Your task to perform on an android device: open app "Spotify: Music and Podcasts" Image 0: 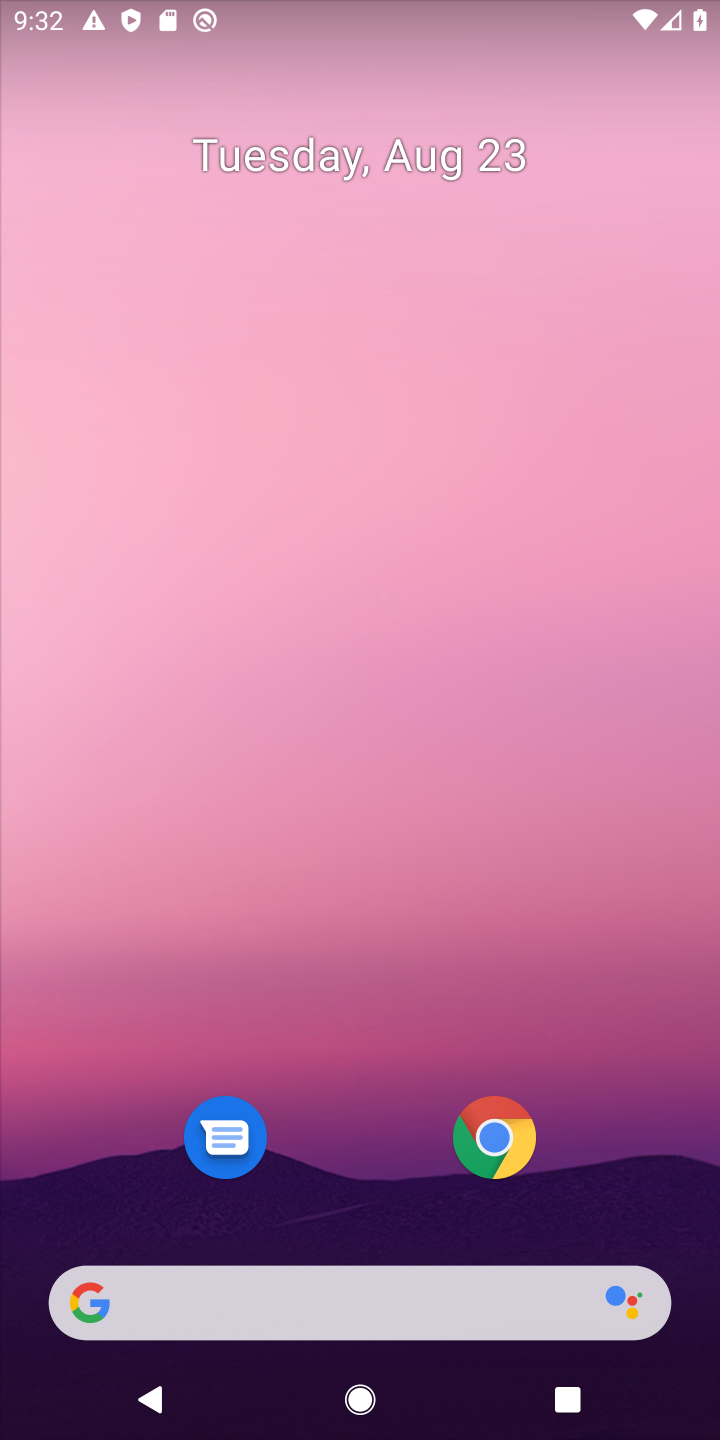
Step 0: drag from (444, 1238) to (300, 31)
Your task to perform on an android device: open app "Spotify: Music and Podcasts" Image 1: 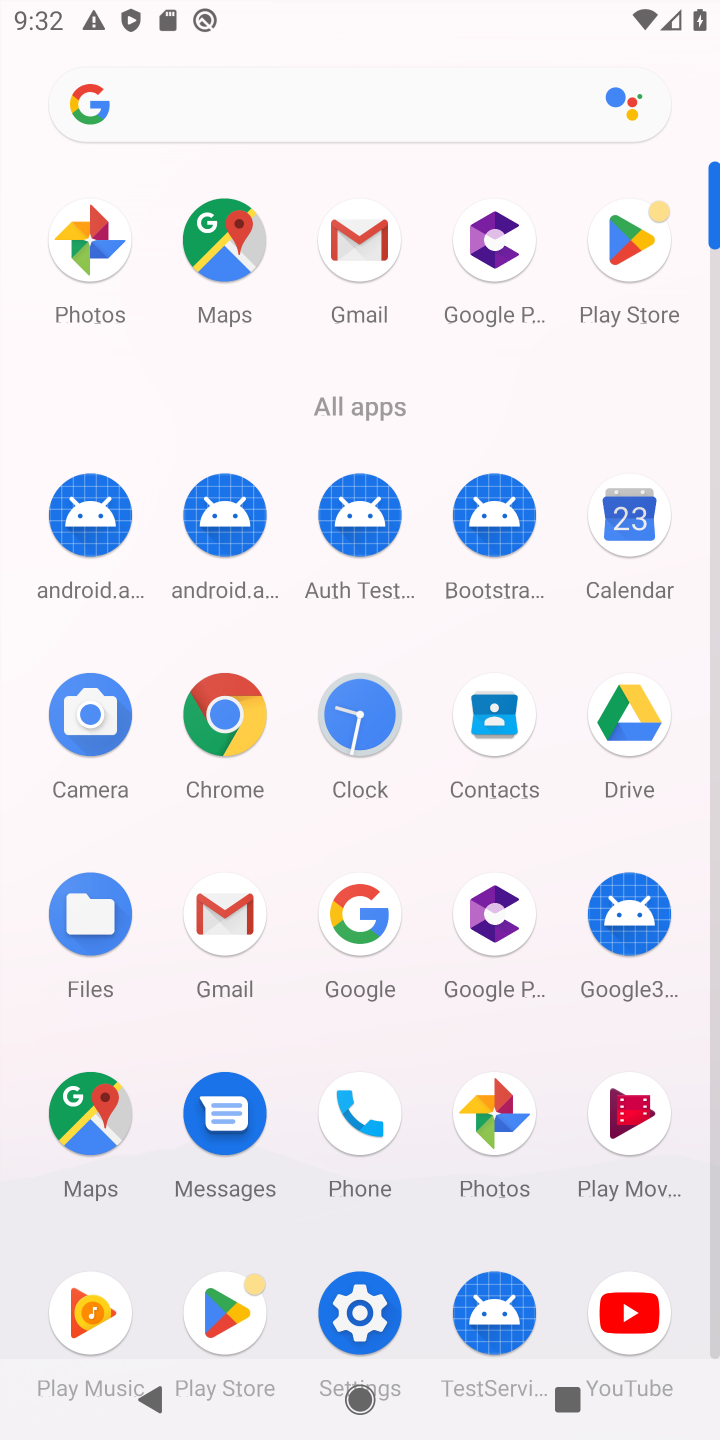
Step 1: click (189, 1312)
Your task to perform on an android device: open app "Spotify: Music and Podcasts" Image 2: 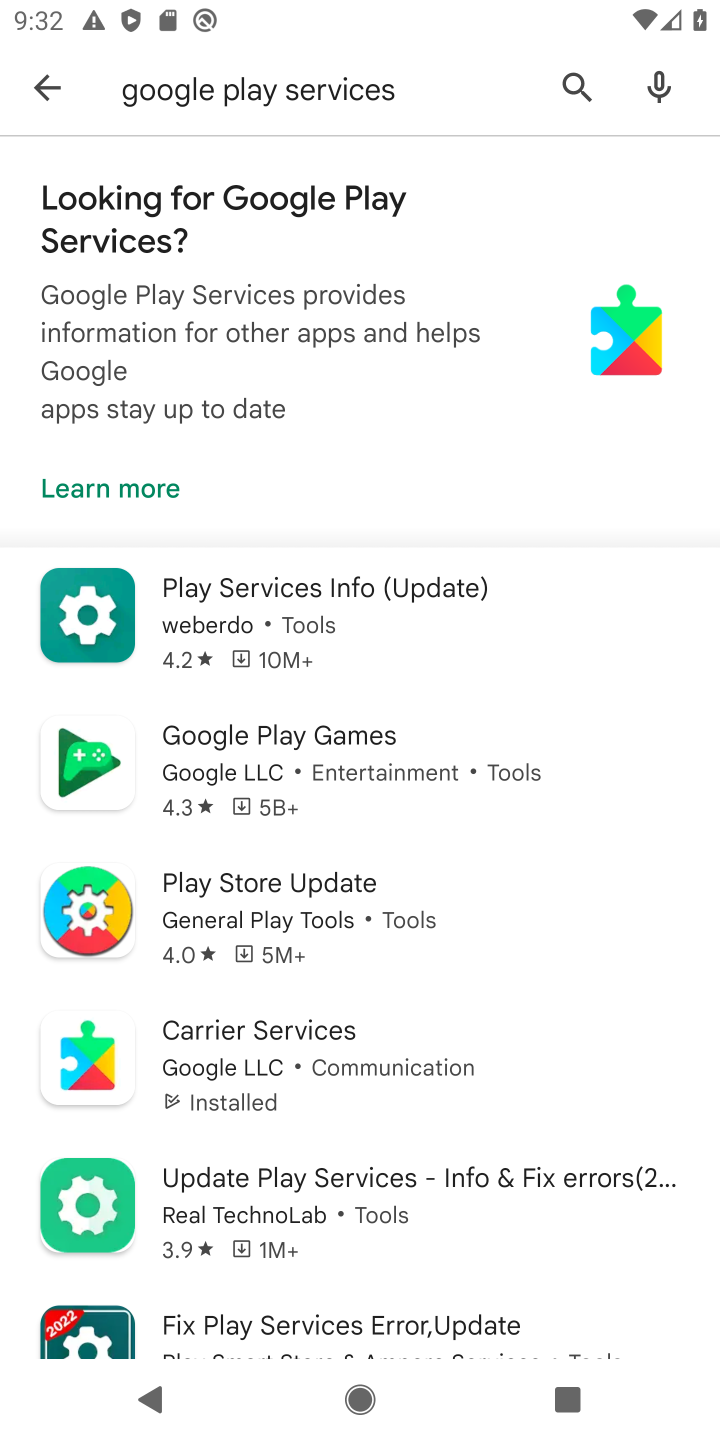
Step 2: click (29, 62)
Your task to perform on an android device: open app "Spotify: Music and Podcasts" Image 3: 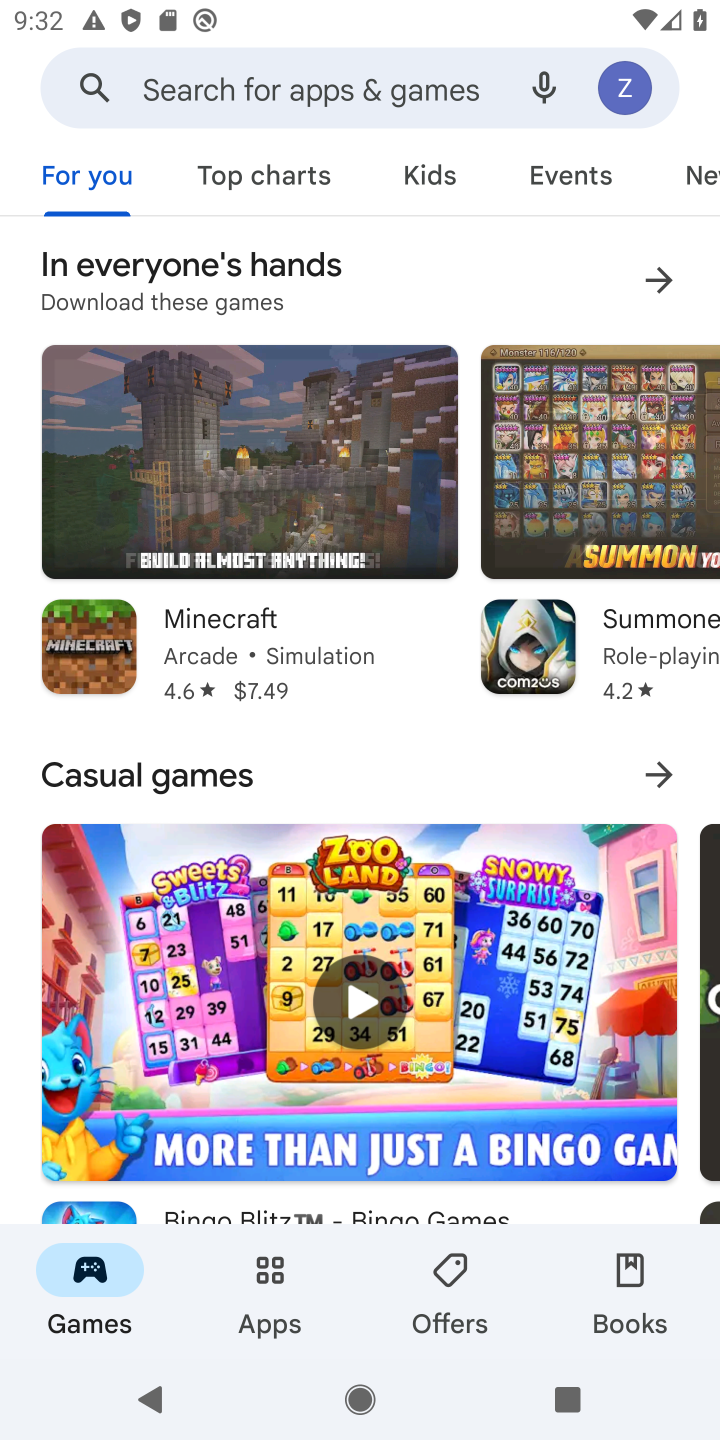
Step 3: click (213, 86)
Your task to perform on an android device: open app "Spotify: Music and Podcasts" Image 4: 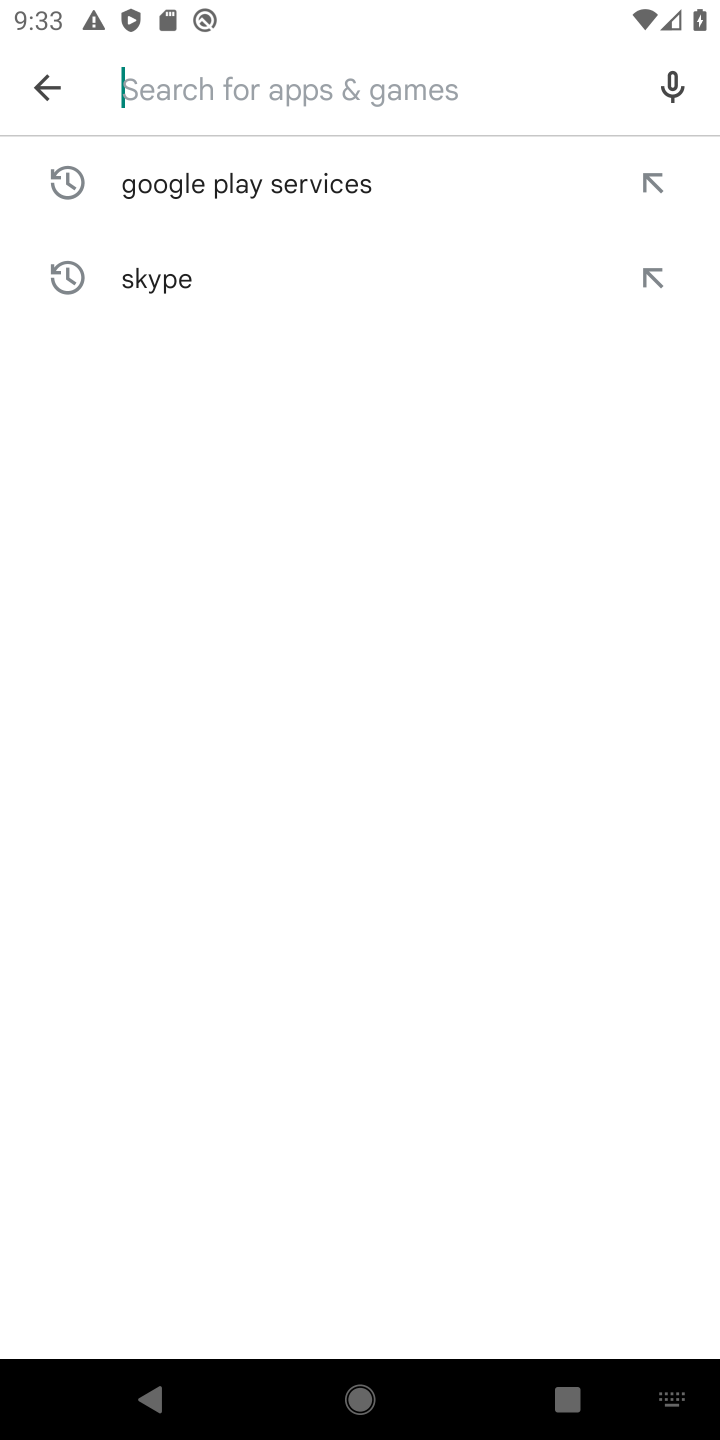
Step 4: click (711, 1291)
Your task to perform on an android device: open app "Spotify: Music and Podcasts" Image 5: 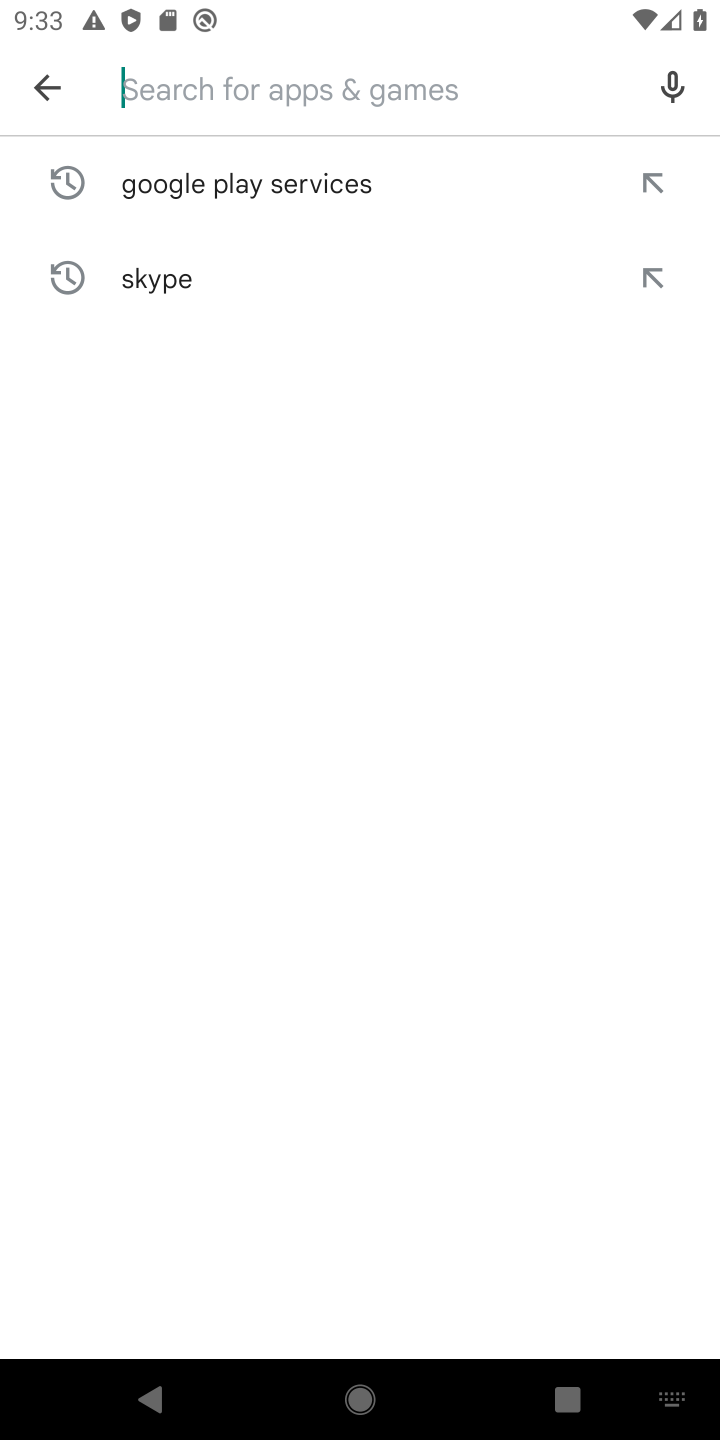
Step 5: type "Spotify"
Your task to perform on an android device: open app "Spotify: Music and Podcasts" Image 6: 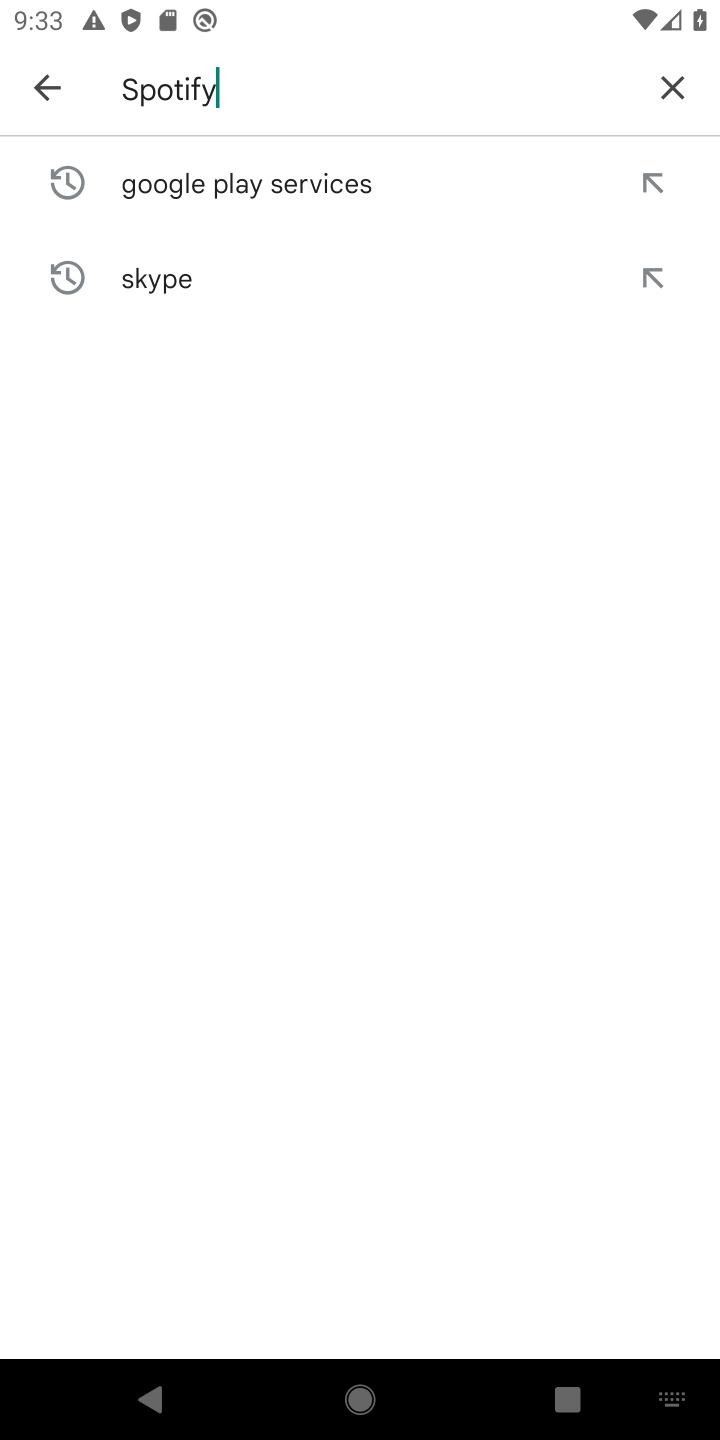
Step 6: drag from (711, 1291) to (670, 318)
Your task to perform on an android device: open app "Spotify: Music and Podcasts" Image 7: 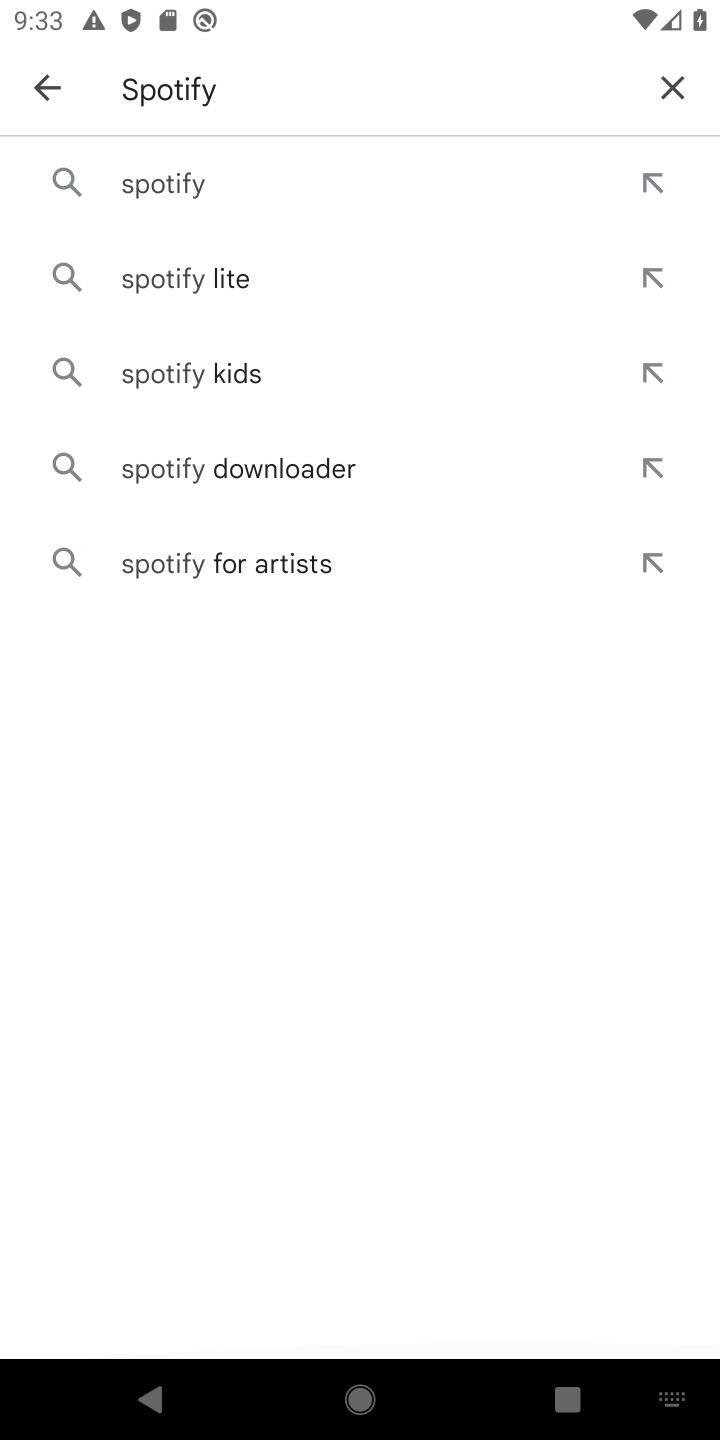
Step 7: click (136, 158)
Your task to perform on an android device: open app "Spotify: Music and Podcasts" Image 8: 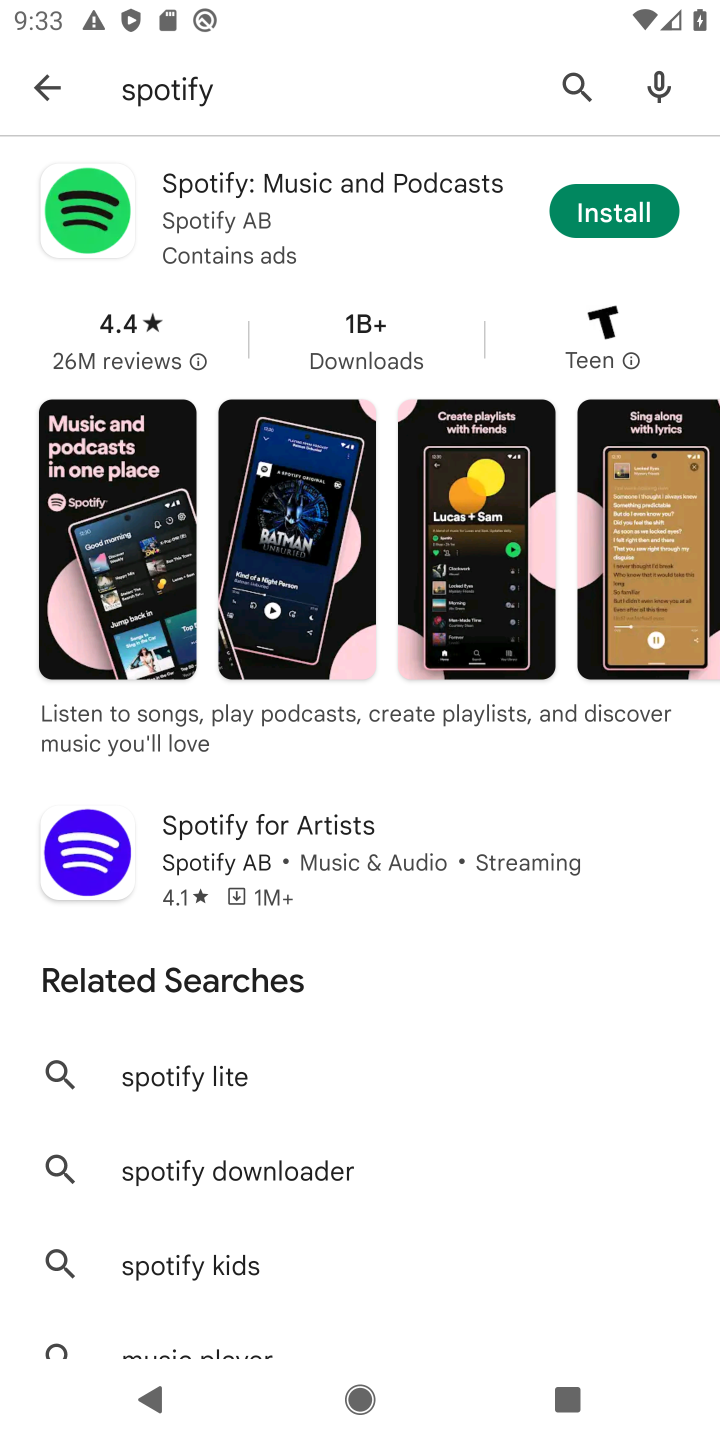
Step 8: task complete